Your task to perform on an android device: change keyboard looks Image 0: 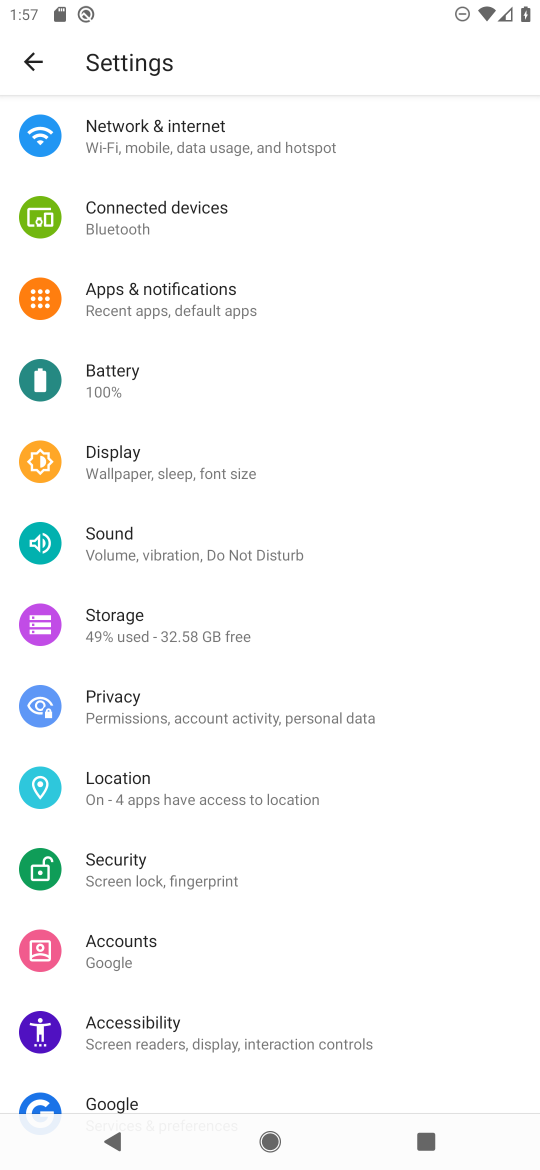
Step 0: click (194, 1050)
Your task to perform on an android device: change keyboard looks Image 1: 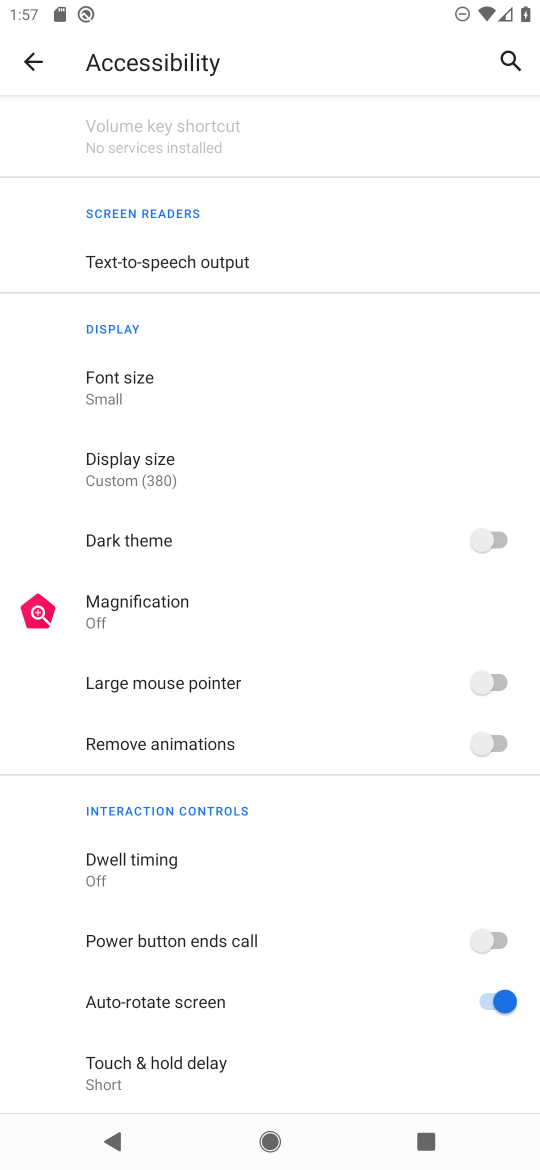
Step 1: click (57, 71)
Your task to perform on an android device: change keyboard looks Image 2: 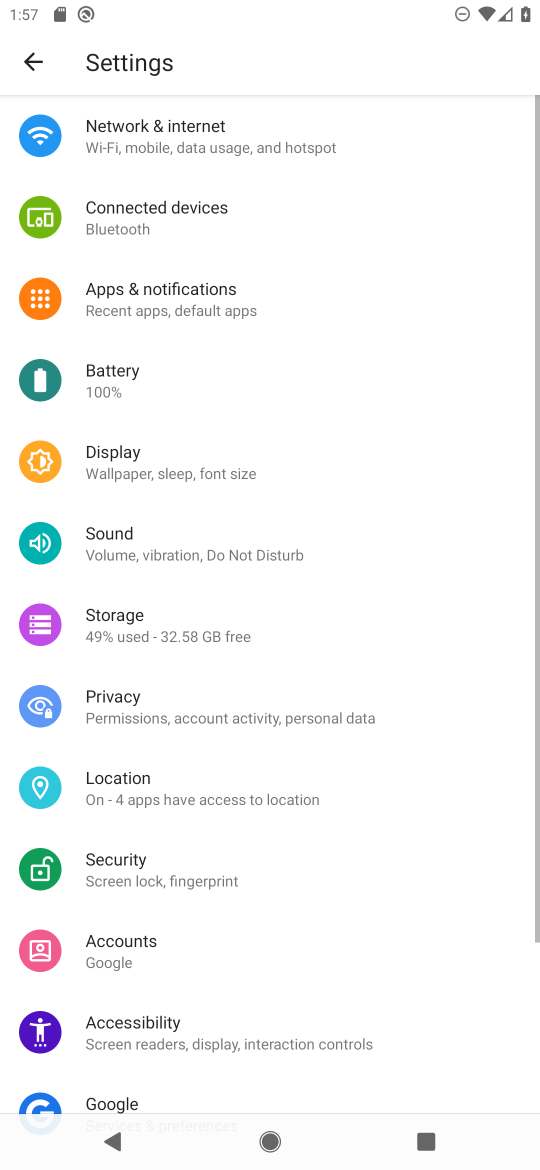
Step 2: drag from (229, 950) to (302, 483)
Your task to perform on an android device: change keyboard looks Image 3: 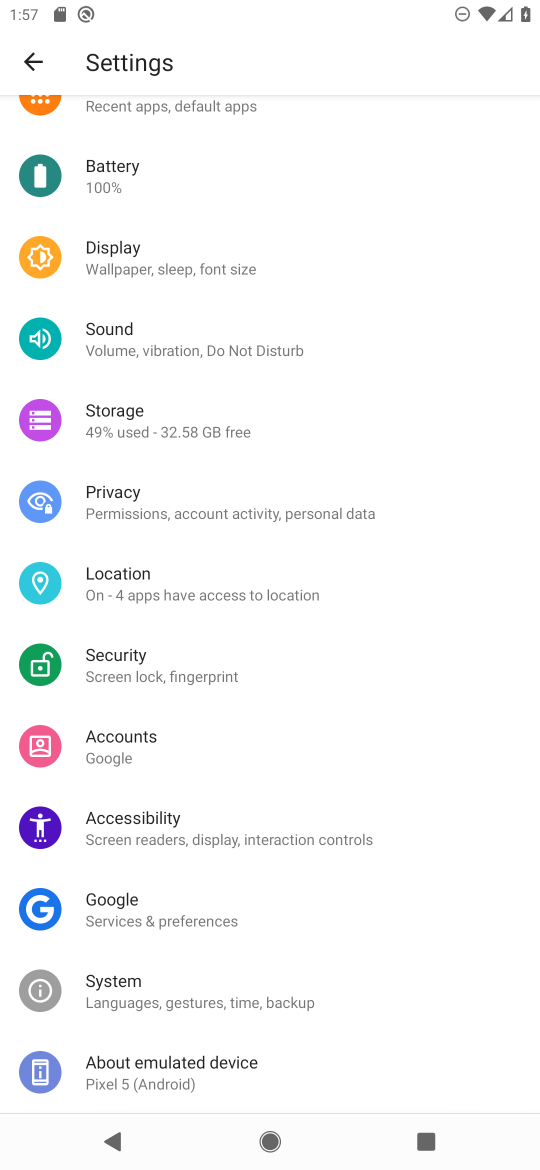
Step 3: click (215, 997)
Your task to perform on an android device: change keyboard looks Image 4: 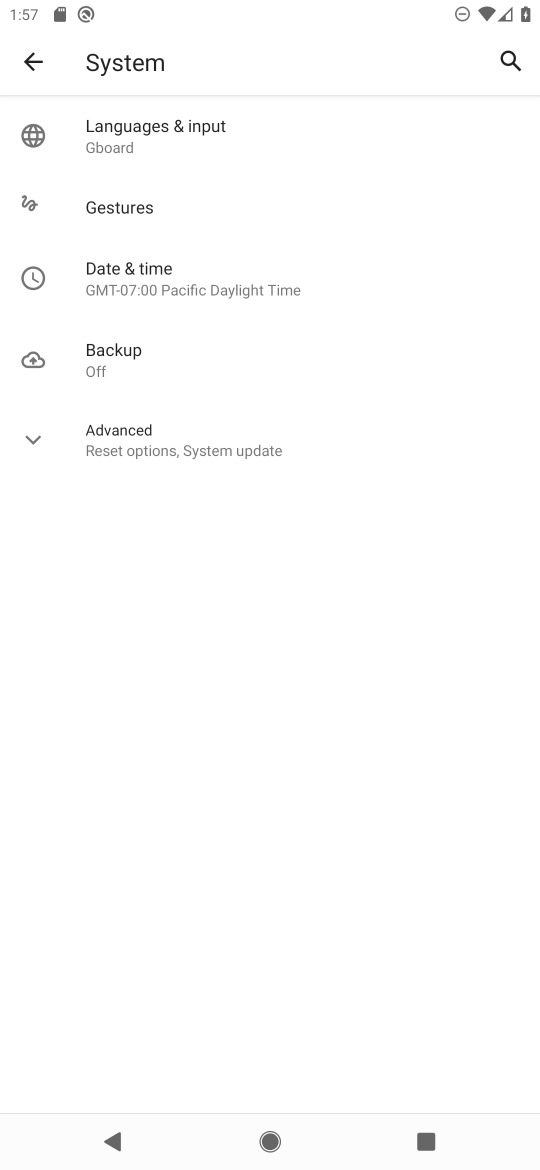
Step 4: click (152, 107)
Your task to perform on an android device: change keyboard looks Image 5: 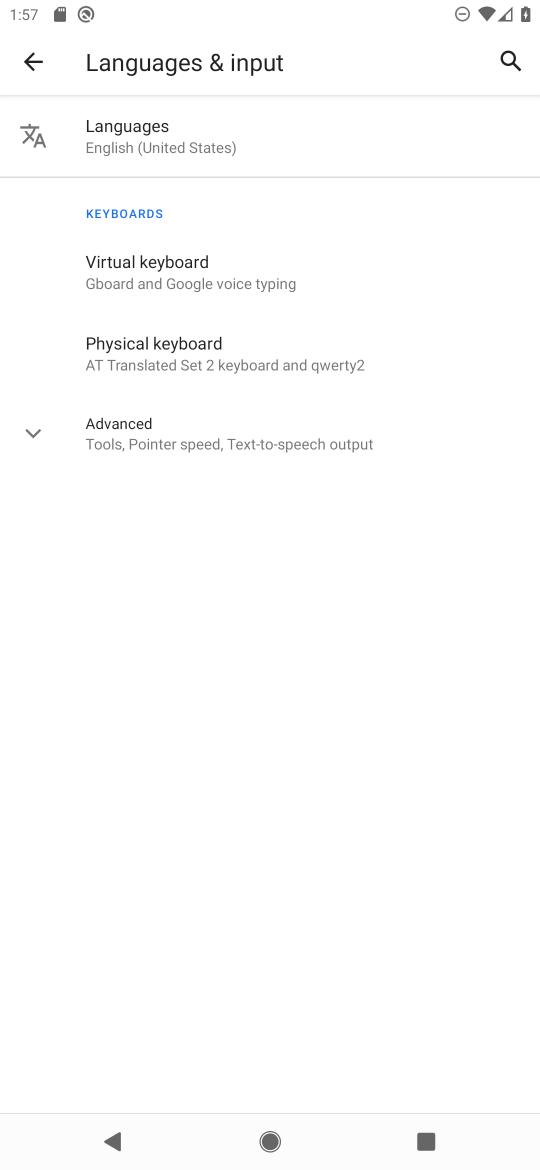
Step 5: click (198, 285)
Your task to perform on an android device: change keyboard looks Image 6: 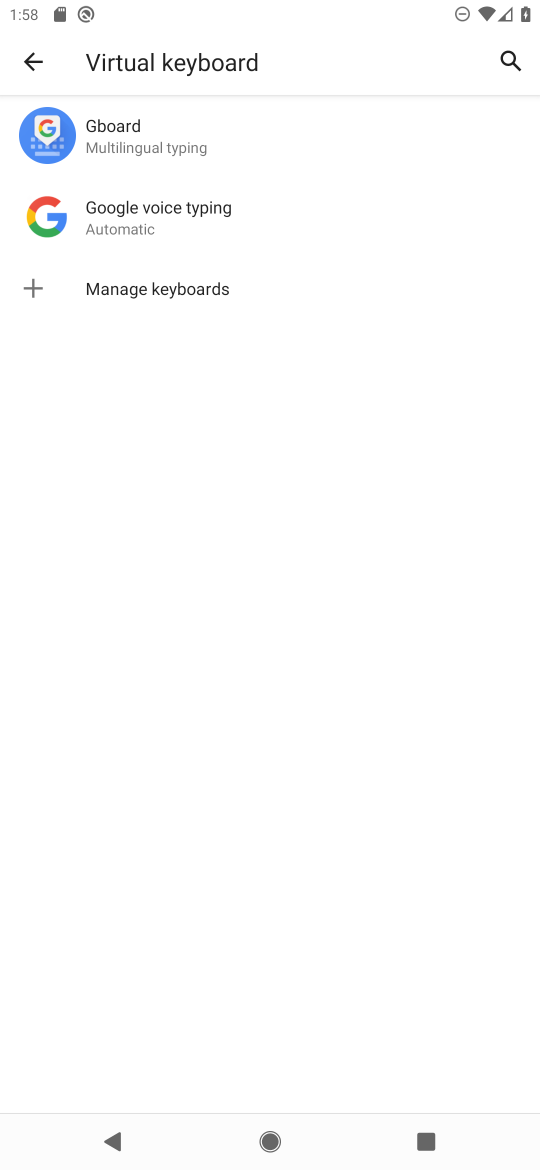
Step 6: click (141, 131)
Your task to perform on an android device: change keyboard looks Image 7: 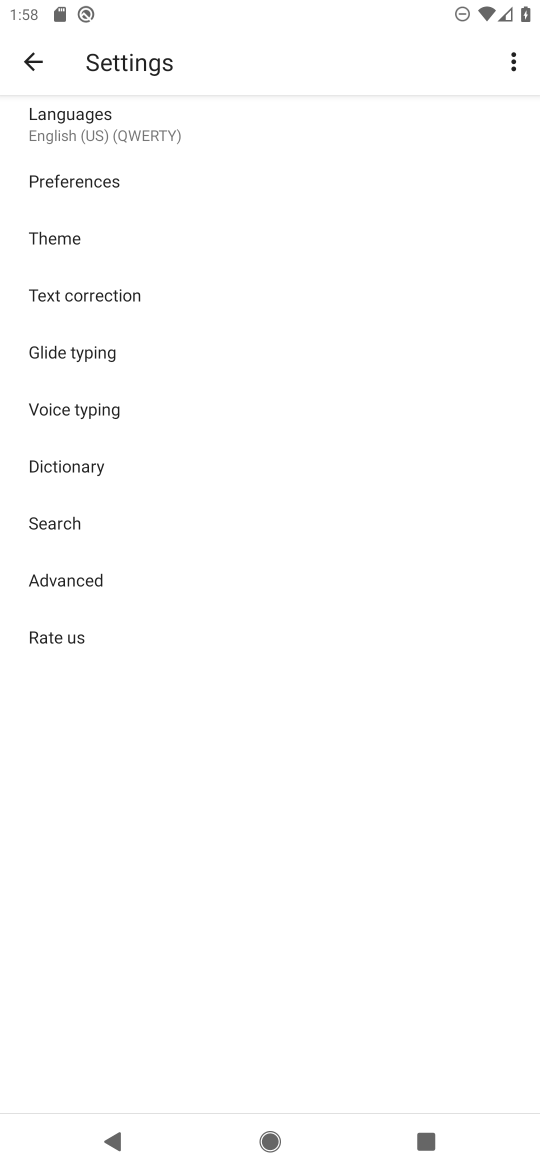
Step 7: click (89, 228)
Your task to perform on an android device: change keyboard looks Image 8: 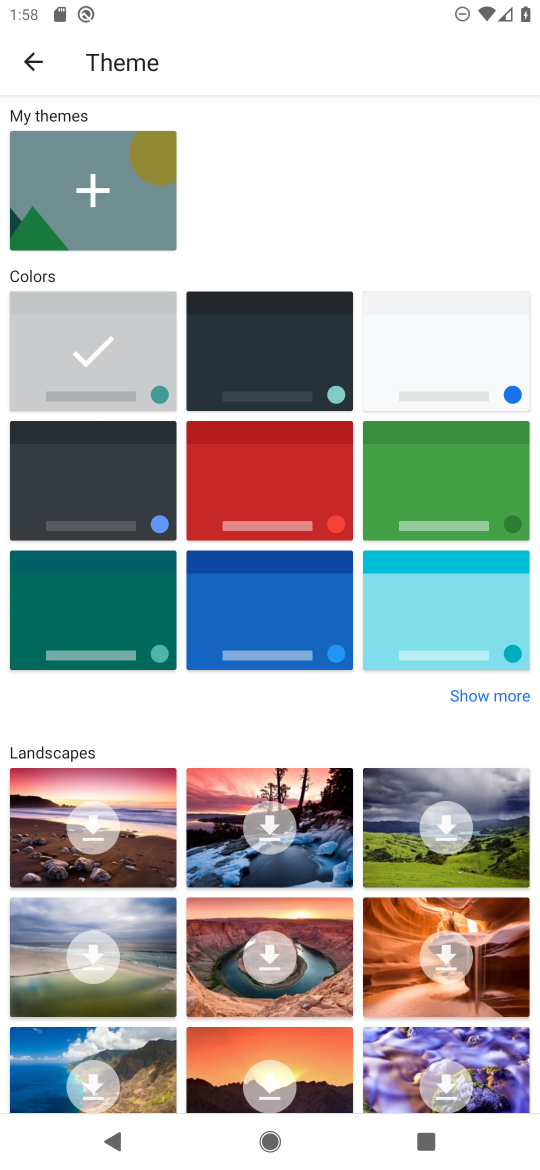
Step 8: click (244, 378)
Your task to perform on an android device: change keyboard looks Image 9: 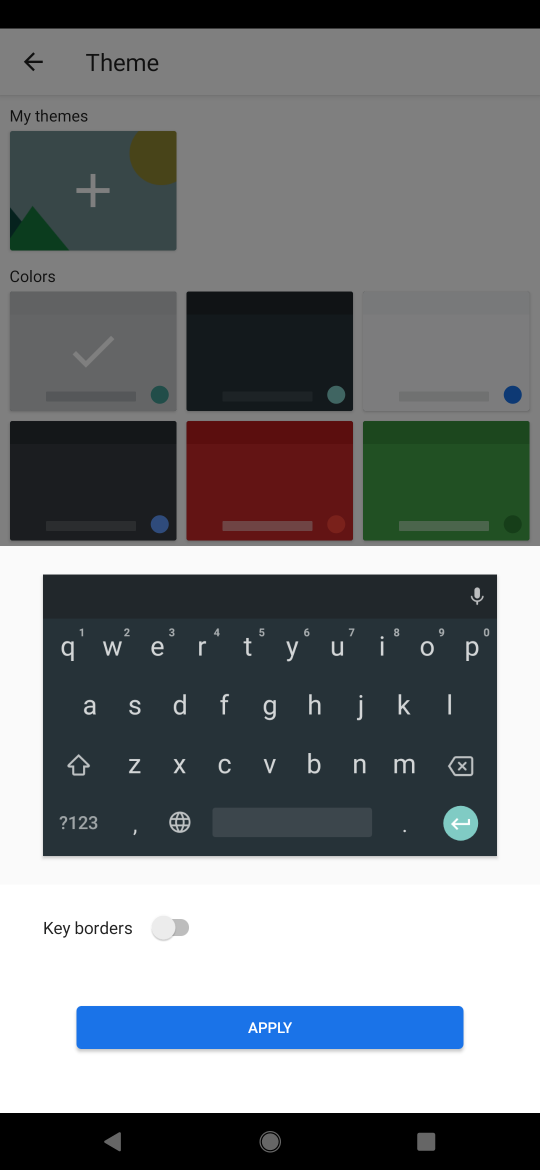
Step 9: click (329, 1004)
Your task to perform on an android device: change keyboard looks Image 10: 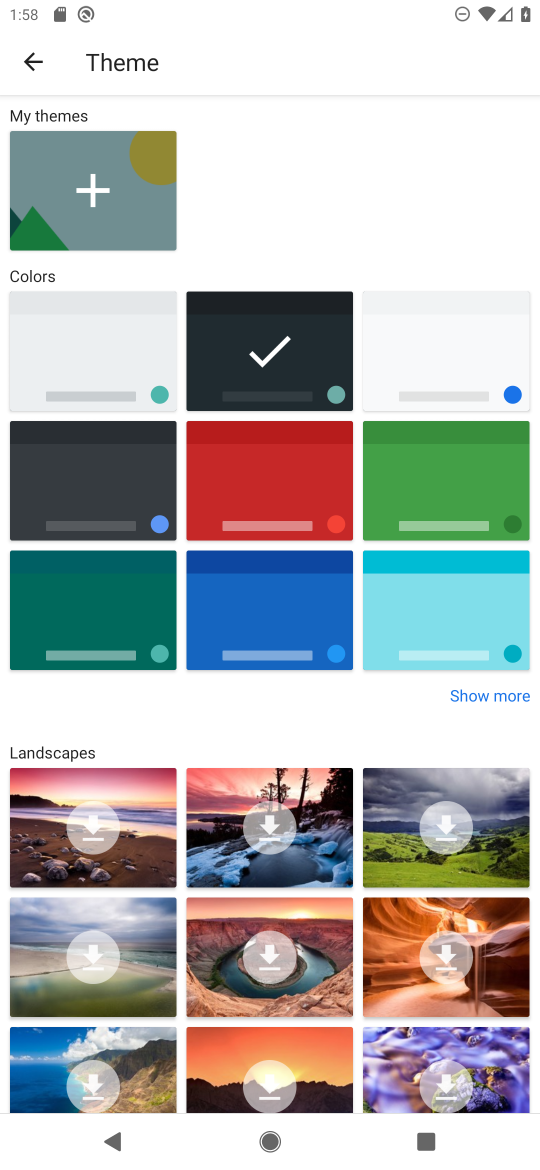
Step 10: task complete